Your task to perform on an android device: Go to location settings Image 0: 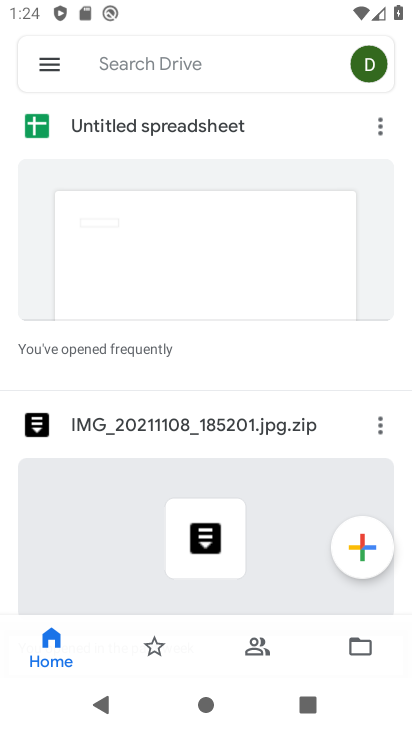
Step 0: press home button
Your task to perform on an android device: Go to location settings Image 1: 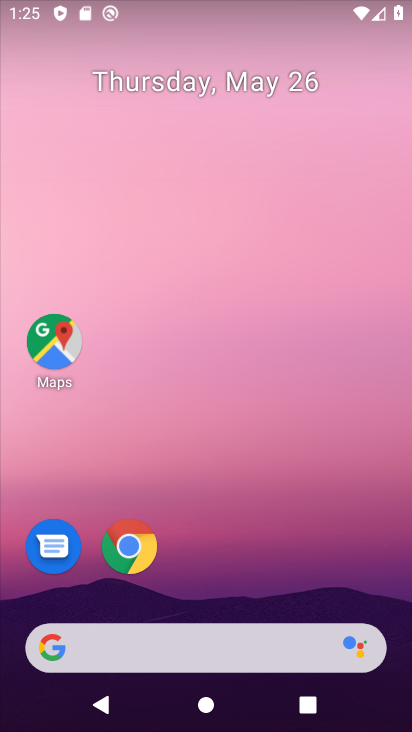
Step 1: drag from (254, 627) to (382, 31)
Your task to perform on an android device: Go to location settings Image 2: 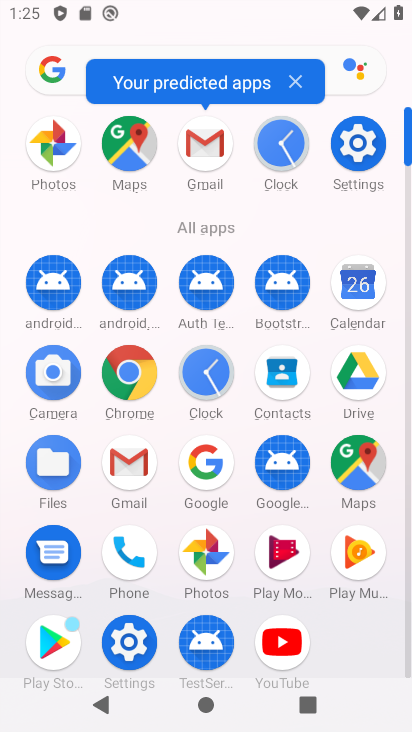
Step 2: click (116, 643)
Your task to perform on an android device: Go to location settings Image 3: 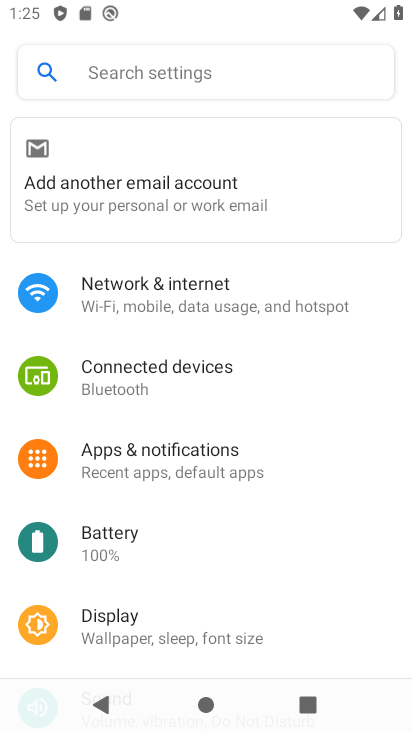
Step 3: drag from (158, 640) to (250, 262)
Your task to perform on an android device: Go to location settings Image 4: 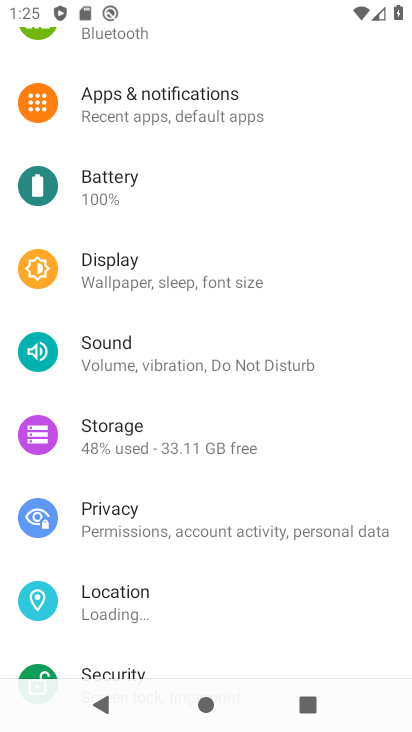
Step 4: click (142, 605)
Your task to perform on an android device: Go to location settings Image 5: 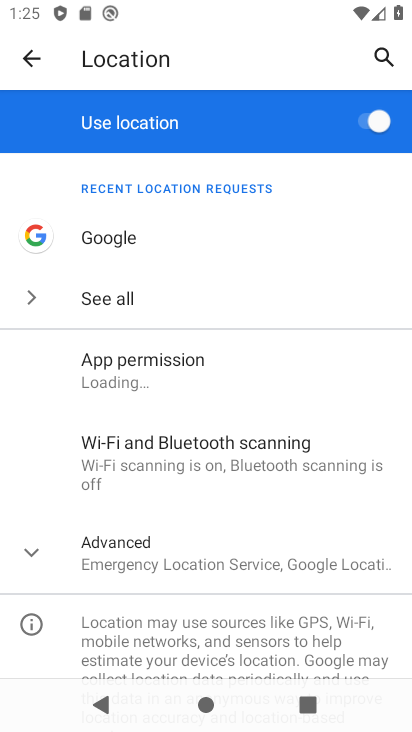
Step 5: task complete